Your task to perform on an android device: What's the weather going to be this weekend? Image 0: 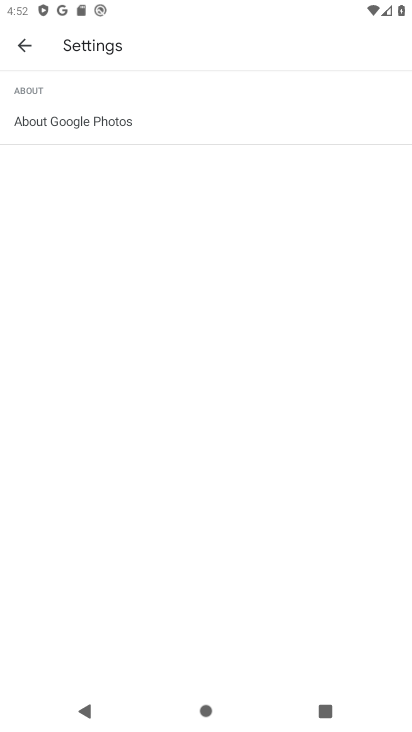
Step 0: press home button
Your task to perform on an android device: What's the weather going to be this weekend? Image 1: 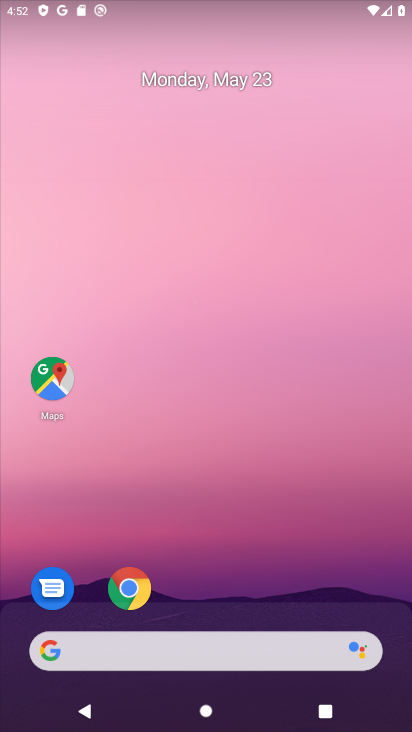
Step 1: click (130, 594)
Your task to perform on an android device: What's the weather going to be this weekend? Image 2: 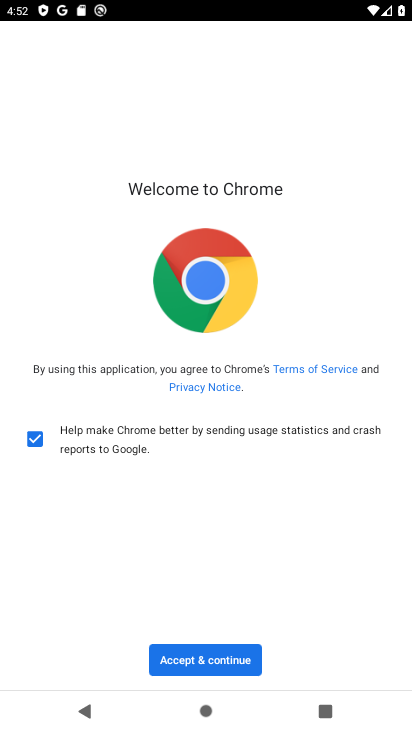
Step 2: click (199, 658)
Your task to perform on an android device: What's the weather going to be this weekend? Image 3: 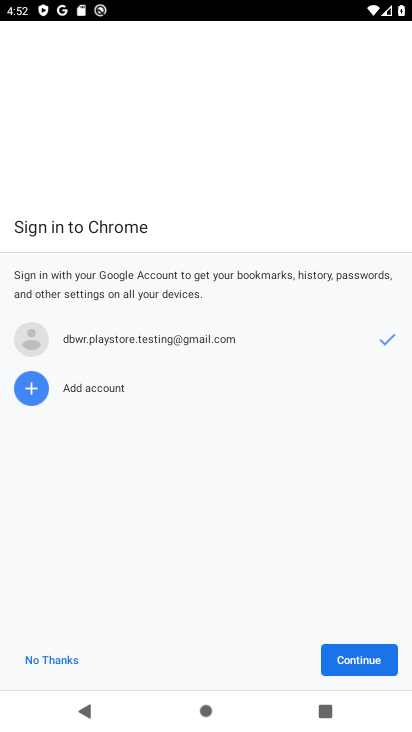
Step 3: click (326, 656)
Your task to perform on an android device: What's the weather going to be this weekend? Image 4: 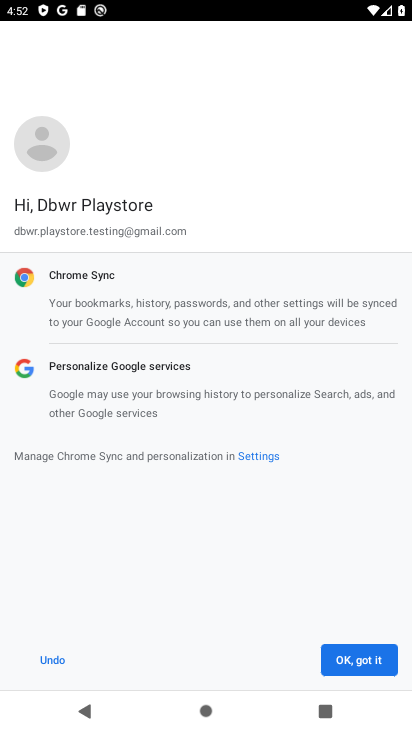
Step 4: click (326, 656)
Your task to perform on an android device: What's the weather going to be this weekend? Image 5: 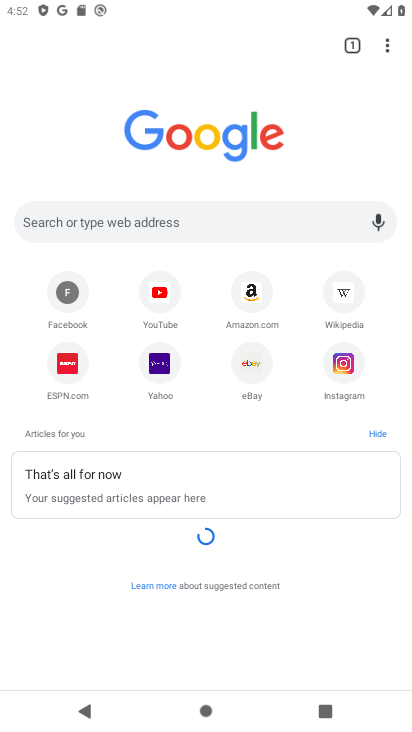
Step 5: click (202, 220)
Your task to perform on an android device: What's the weather going to be this weekend? Image 6: 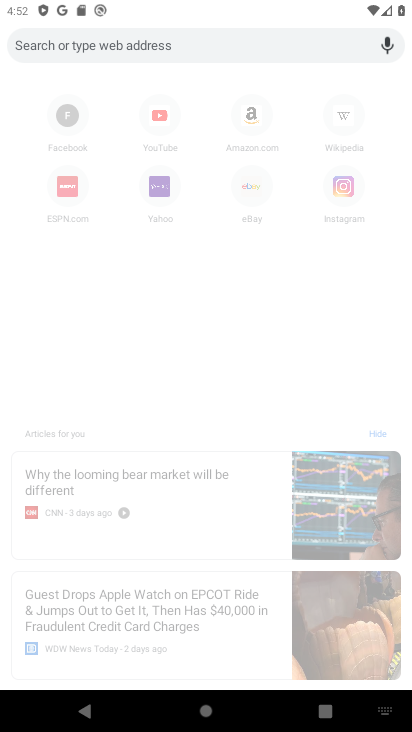
Step 6: type "What's the weather going to be this weekend?"
Your task to perform on an android device: What's the weather going to be this weekend? Image 7: 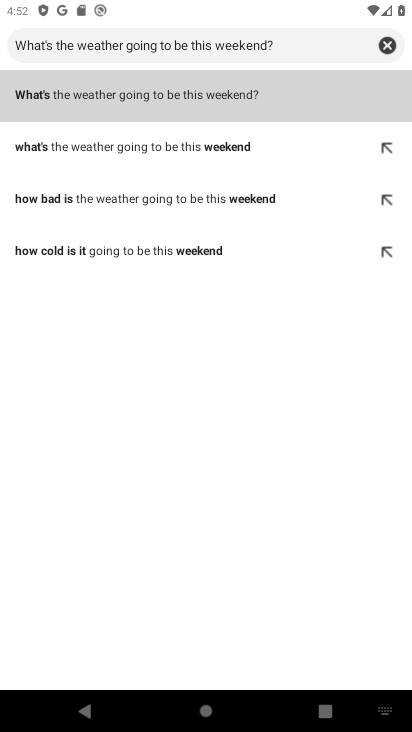
Step 7: click (215, 87)
Your task to perform on an android device: What's the weather going to be this weekend? Image 8: 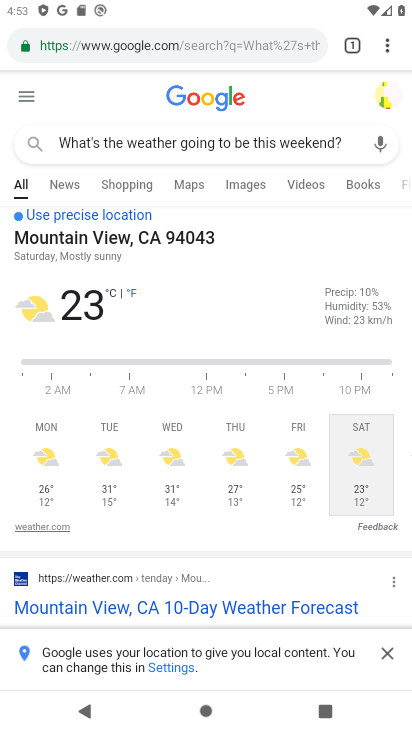
Step 8: task complete